Your task to perform on an android device: delete the emails in spam in the gmail app Image 0: 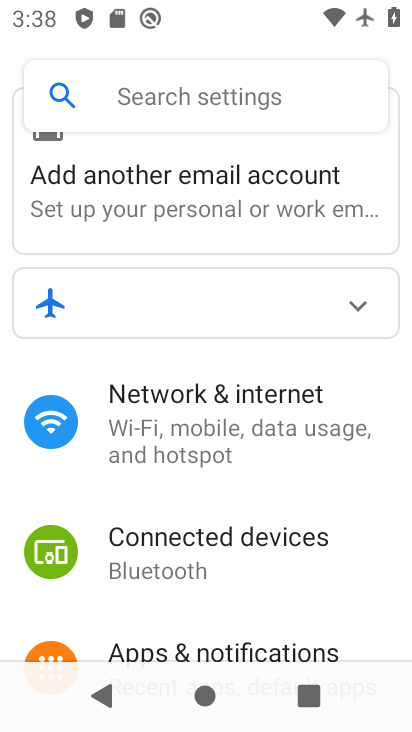
Step 0: drag from (212, 619) to (230, 445)
Your task to perform on an android device: delete the emails in spam in the gmail app Image 1: 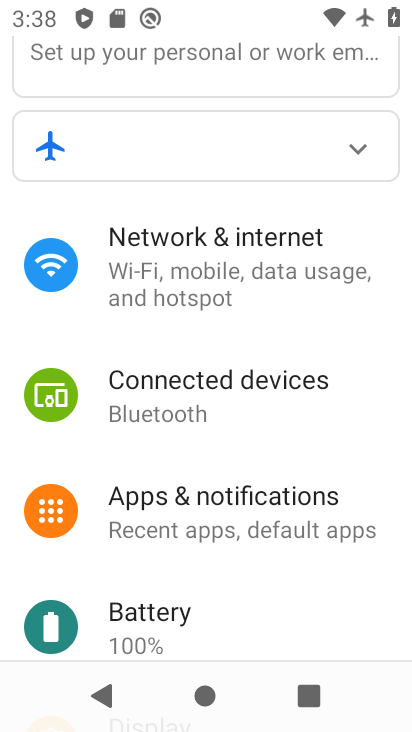
Step 1: press home button
Your task to perform on an android device: delete the emails in spam in the gmail app Image 2: 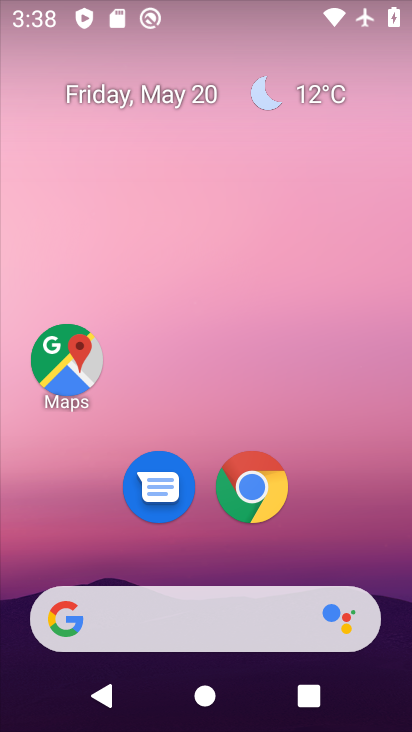
Step 2: drag from (296, 542) to (235, 74)
Your task to perform on an android device: delete the emails in spam in the gmail app Image 3: 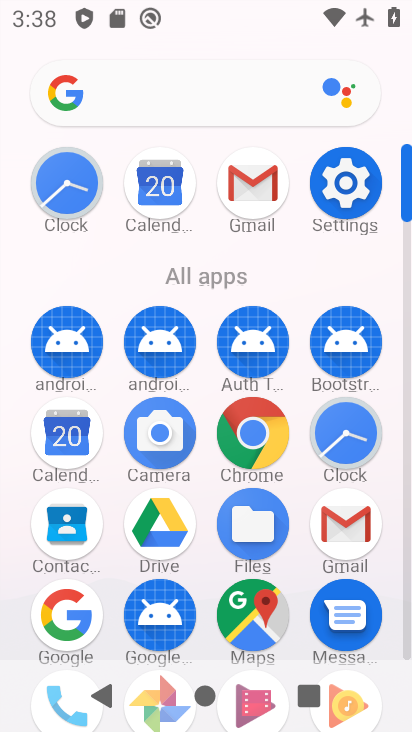
Step 3: click (265, 200)
Your task to perform on an android device: delete the emails in spam in the gmail app Image 4: 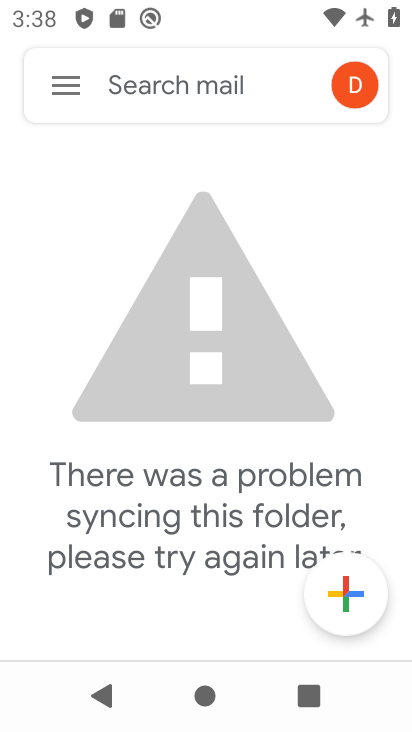
Step 4: click (58, 88)
Your task to perform on an android device: delete the emails in spam in the gmail app Image 5: 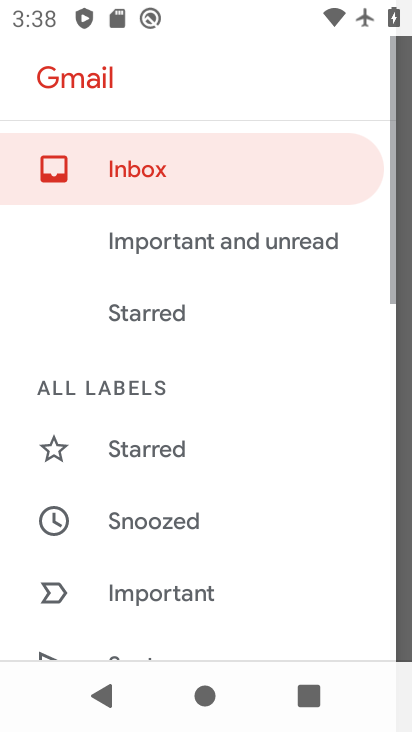
Step 5: drag from (166, 572) to (193, 1)
Your task to perform on an android device: delete the emails in spam in the gmail app Image 6: 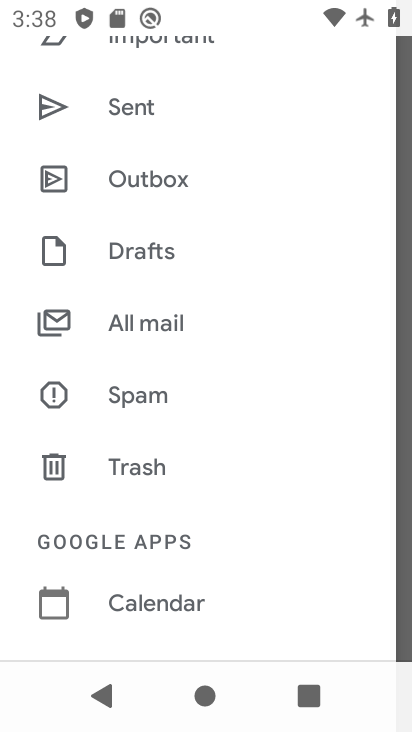
Step 6: click (168, 407)
Your task to perform on an android device: delete the emails in spam in the gmail app Image 7: 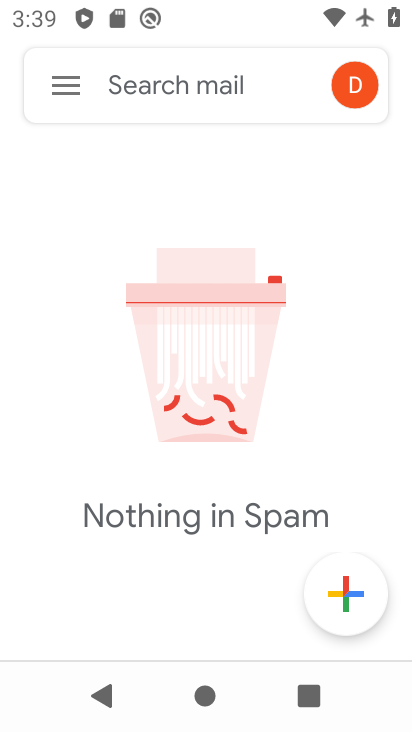
Step 7: task complete